Your task to perform on an android device: Open Android settings Image 0: 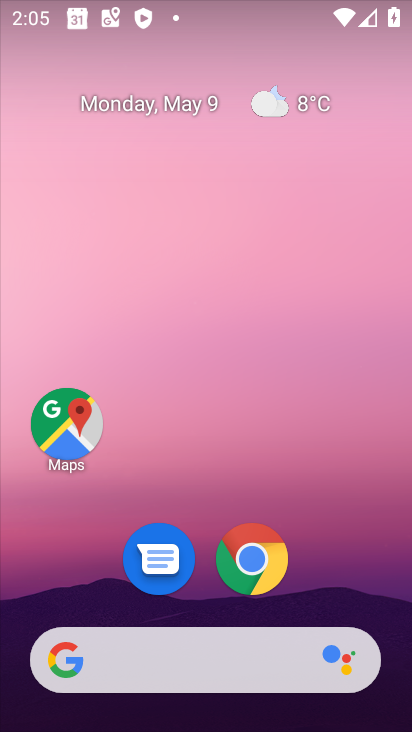
Step 0: drag from (318, 506) to (277, 77)
Your task to perform on an android device: Open Android settings Image 1: 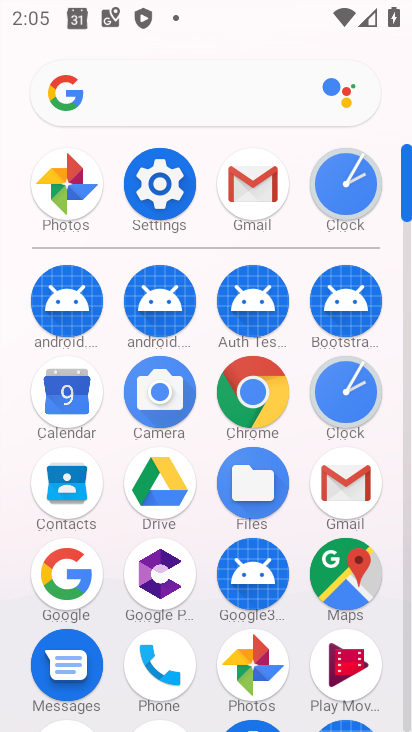
Step 1: click (156, 186)
Your task to perform on an android device: Open Android settings Image 2: 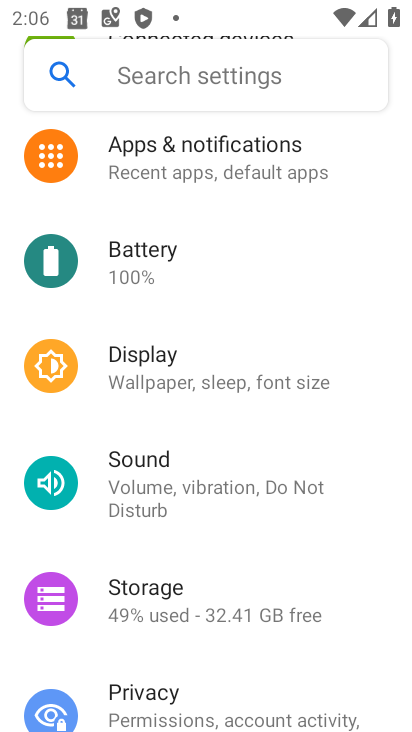
Step 2: drag from (201, 550) to (190, 66)
Your task to perform on an android device: Open Android settings Image 3: 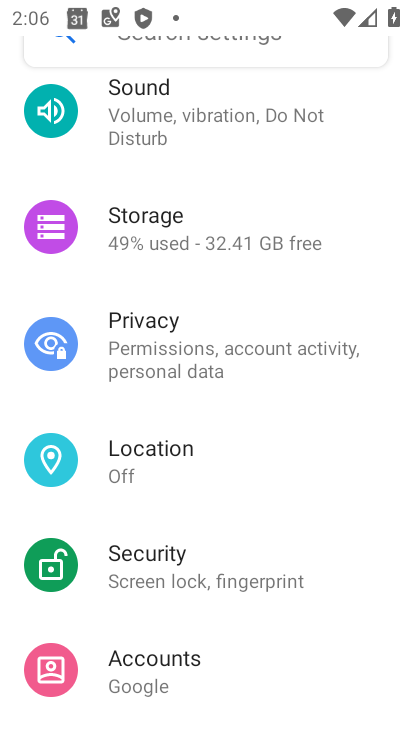
Step 3: drag from (190, 630) to (136, 143)
Your task to perform on an android device: Open Android settings Image 4: 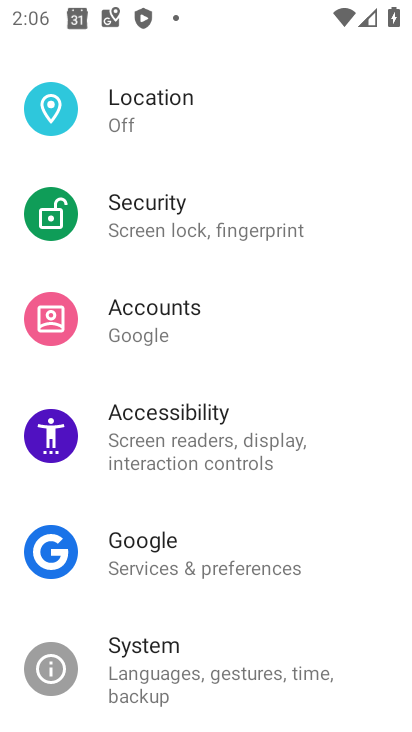
Step 4: drag from (198, 578) to (154, 88)
Your task to perform on an android device: Open Android settings Image 5: 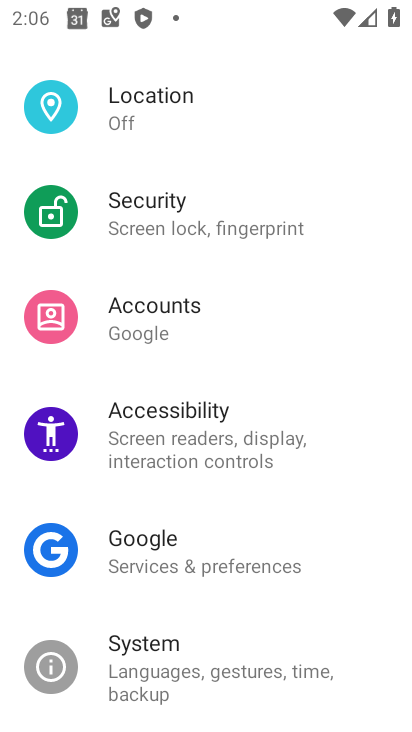
Step 5: drag from (173, 606) to (179, 158)
Your task to perform on an android device: Open Android settings Image 6: 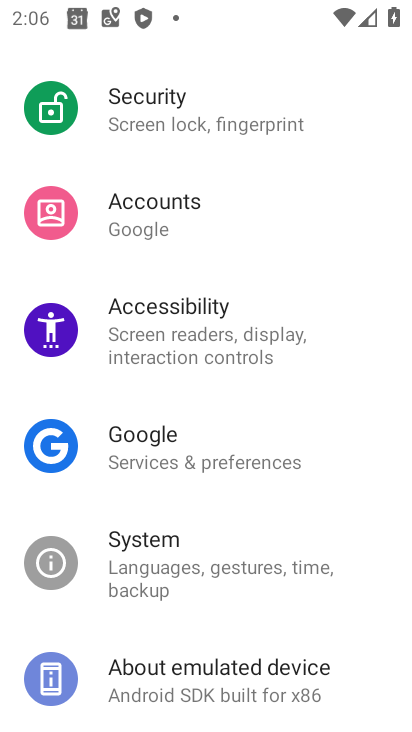
Step 6: click (208, 666)
Your task to perform on an android device: Open Android settings Image 7: 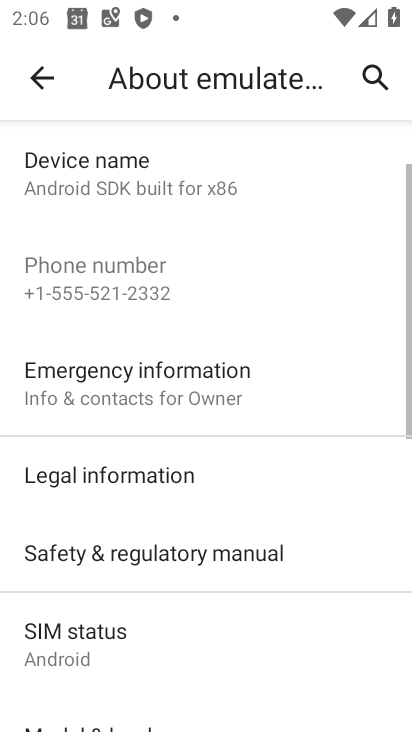
Step 7: drag from (200, 503) to (179, 83)
Your task to perform on an android device: Open Android settings Image 8: 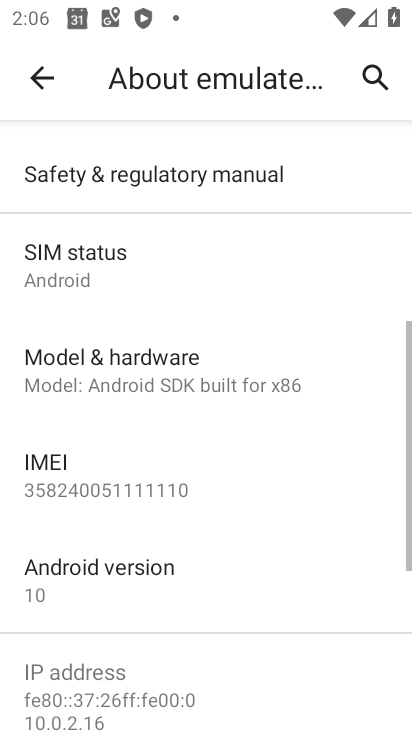
Step 8: click (123, 557)
Your task to perform on an android device: Open Android settings Image 9: 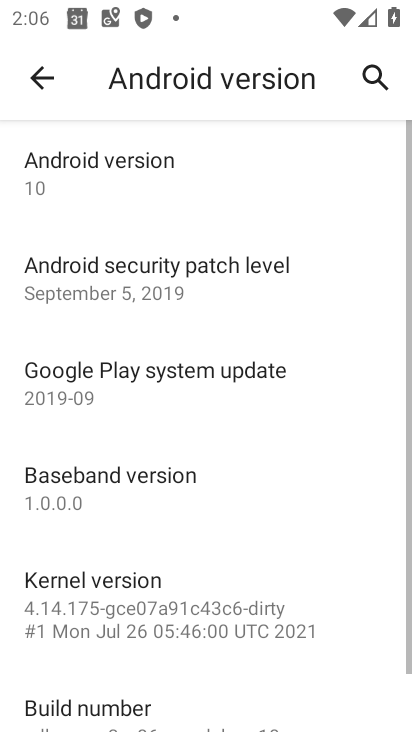
Step 9: task complete